Your task to perform on an android device: Go to ESPN.com Image 0: 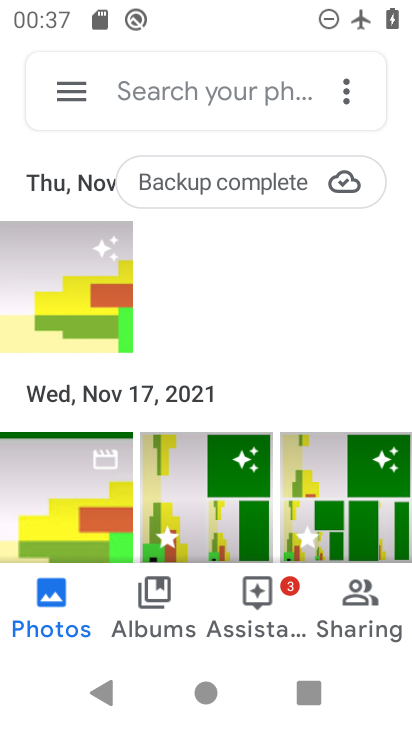
Step 0: press home button
Your task to perform on an android device: Go to ESPN.com Image 1: 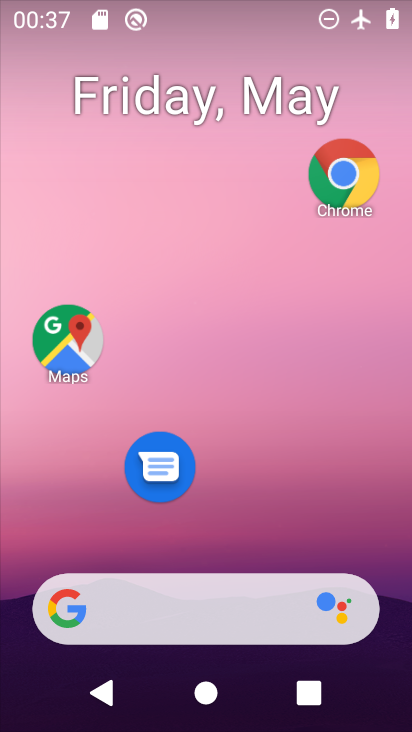
Step 1: click (334, 176)
Your task to perform on an android device: Go to ESPN.com Image 2: 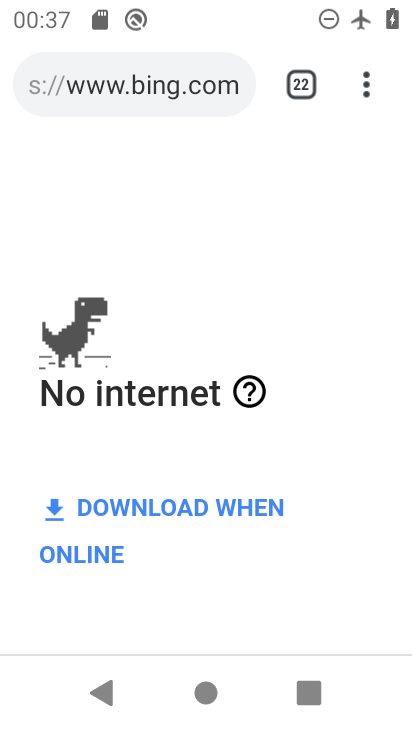
Step 2: click (367, 77)
Your task to perform on an android device: Go to ESPN.com Image 3: 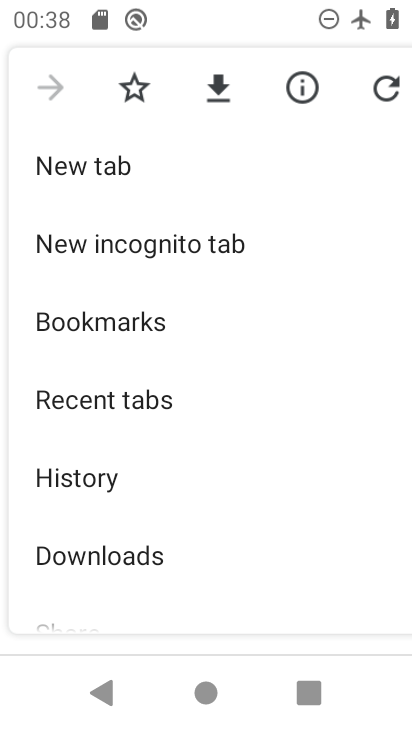
Step 3: click (152, 150)
Your task to perform on an android device: Go to ESPN.com Image 4: 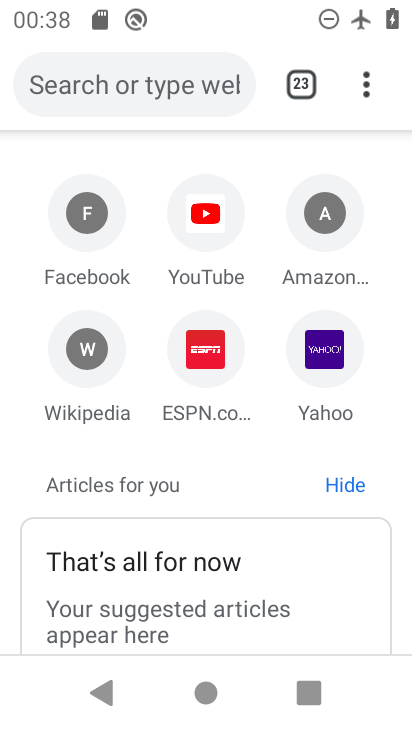
Step 4: click (135, 73)
Your task to perform on an android device: Go to ESPN.com Image 5: 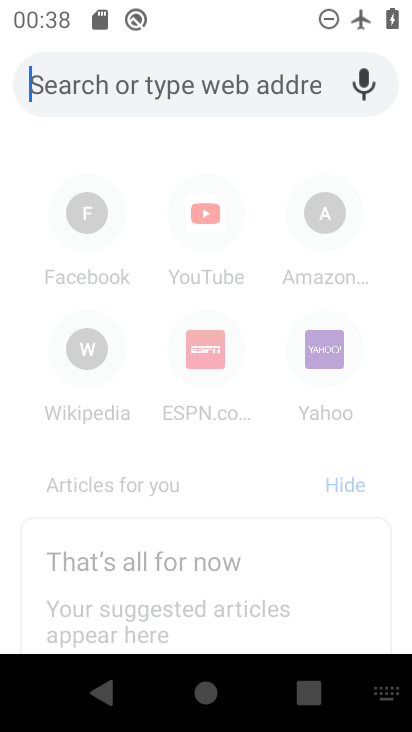
Step 5: type " ESPN.com"
Your task to perform on an android device: Go to ESPN.com Image 6: 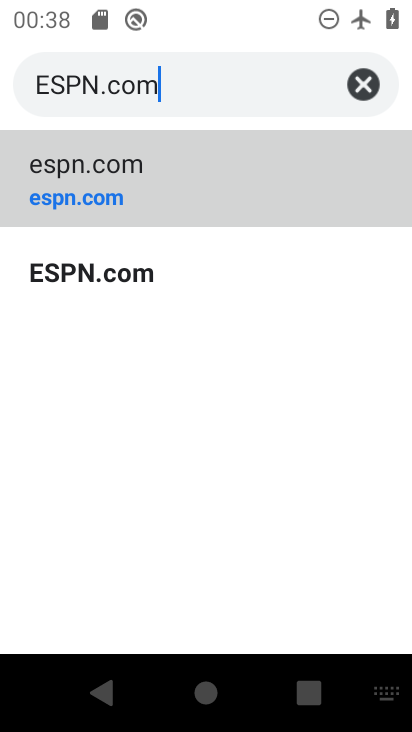
Step 6: click (164, 170)
Your task to perform on an android device: Go to ESPN.com Image 7: 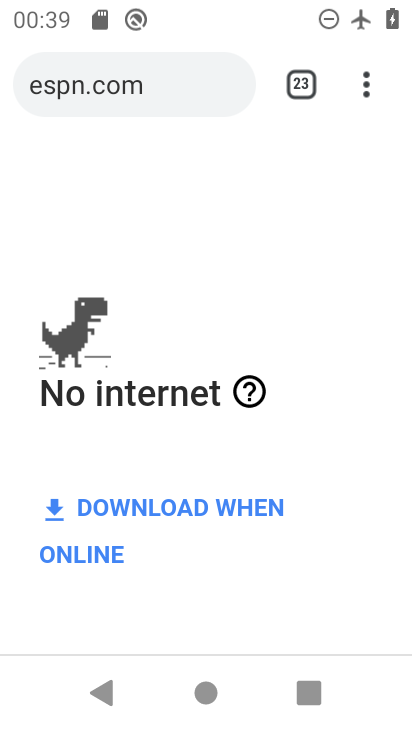
Step 7: task complete